Your task to perform on an android device: Go to ESPN.com Image 0: 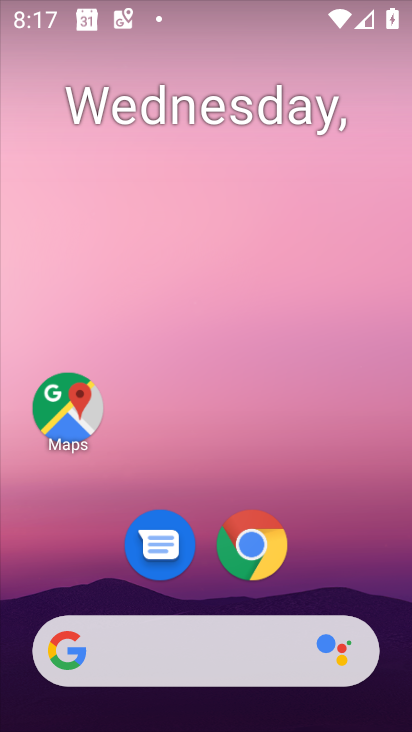
Step 0: click (261, 549)
Your task to perform on an android device: Go to ESPN.com Image 1: 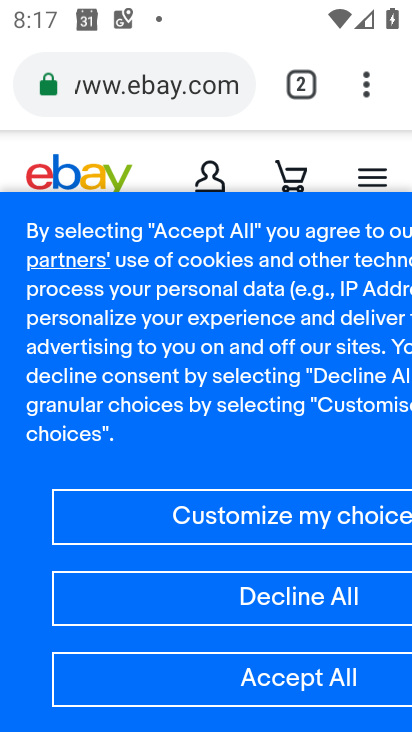
Step 1: click (303, 88)
Your task to perform on an android device: Go to ESPN.com Image 2: 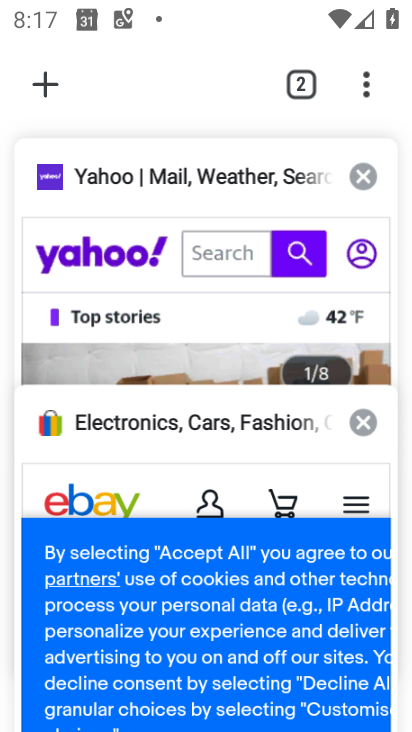
Step 2: click (44, 85)
Your task to perform on an android device: Go to ESPN.com Image 3: 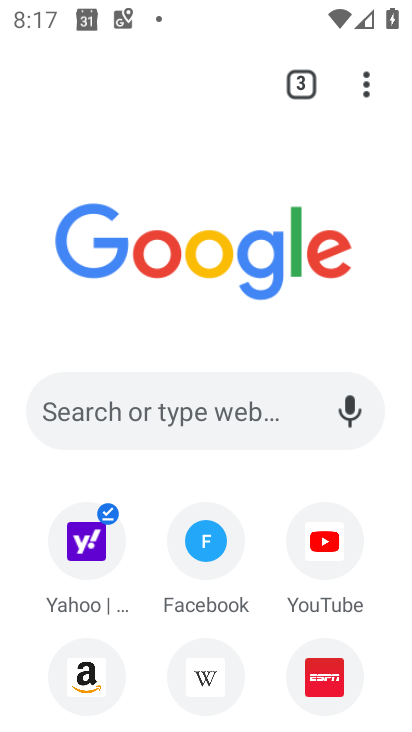
Step 3: click (317, 664)
Your task to perform on an android device: Go to ESPN.com Image 4: 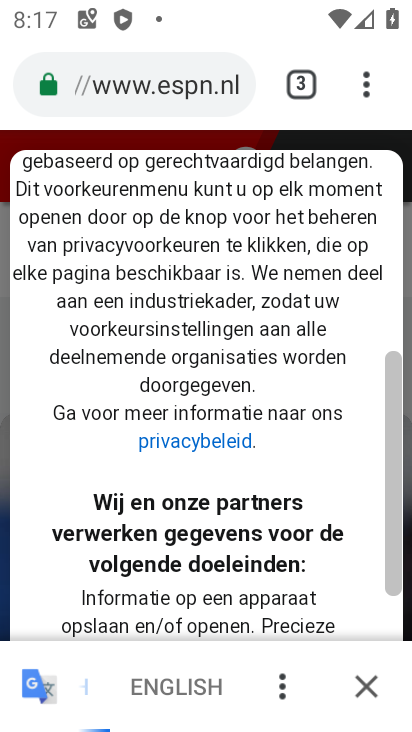
Step 4: task complete